Your task to perform on an android device: turn on the 24-hour format for clock Image 0: 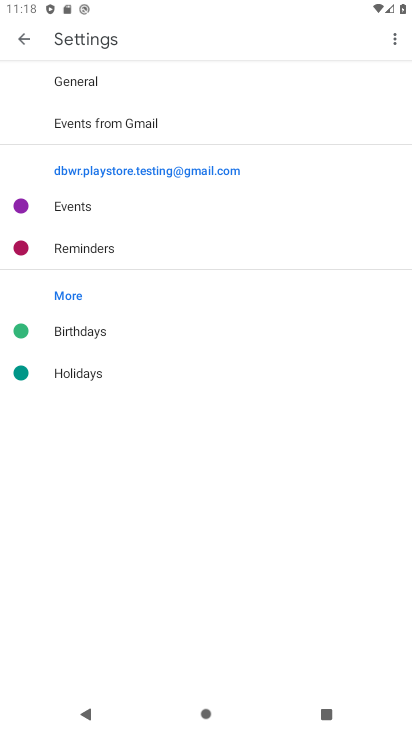
Step 0: press home button
Your task to perform on an android device: turn on the 24-hour format for clock Image 1: 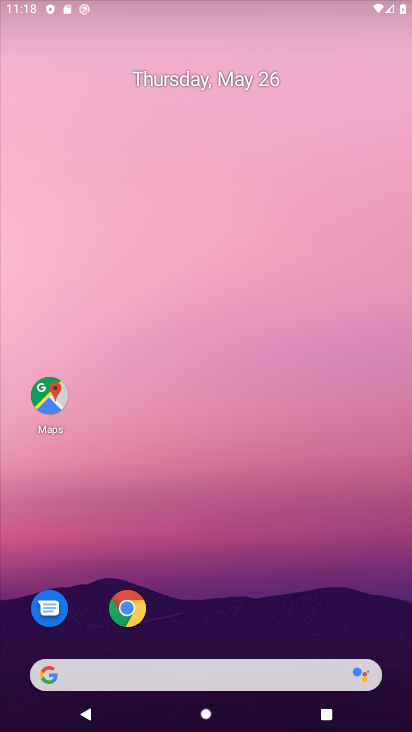
Step 1: drag from (273, 548) to (330, 57)
Your task to perform on an android device: turn on the 24-hour format for clock Image 2: 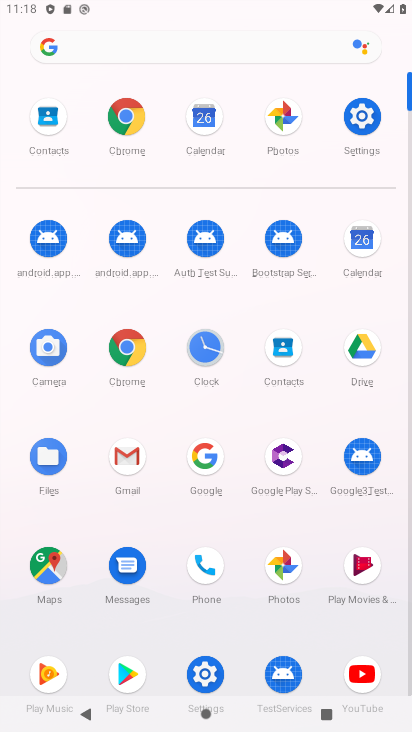
Step 2: click (208, 345)
Your task to perform on an android device: turn on the 24-hour format for clock Image 3: 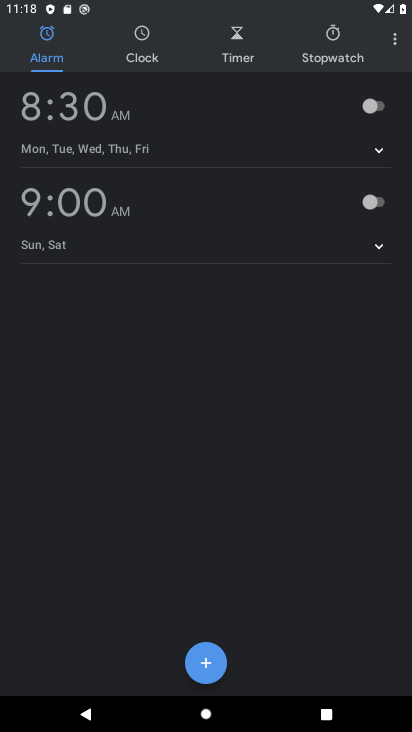
Step 3: click (399, 37)
Your task to perform on an android device: turn on the 24-hour format for clock Image 4: 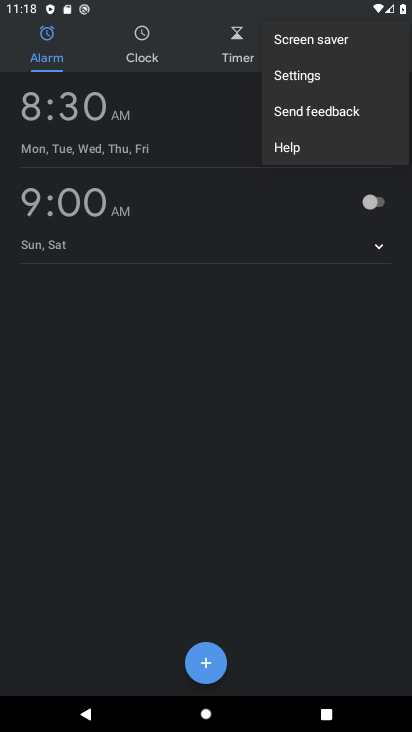
Step 4: click (288, 83)
Your task to perform on an android device: turn on the 24-hour format for clock Image 5: 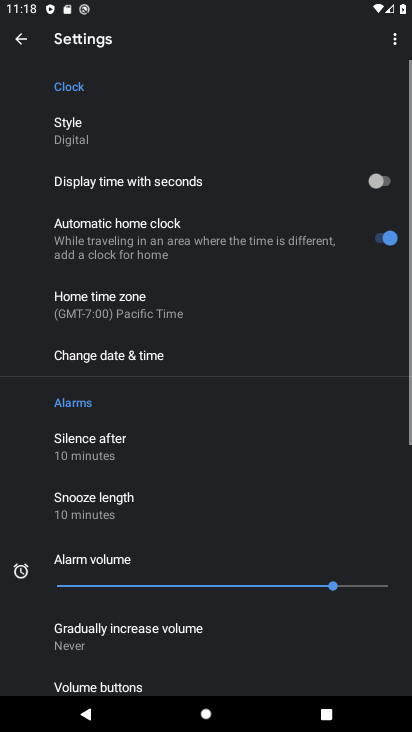
Step 5: click (193, 365)
Your task to perform on an android device: turn on the 24-hour format for clock Image 6: 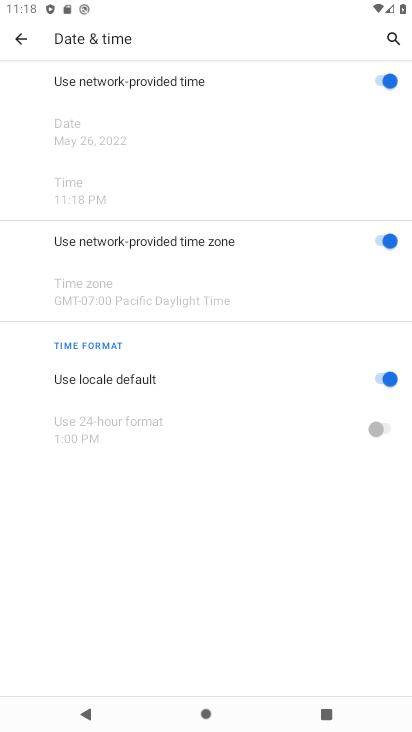
Step 6: click (376, 366)
Your task to perform on an android device: turn on the 24-hour format for clock Image 7: 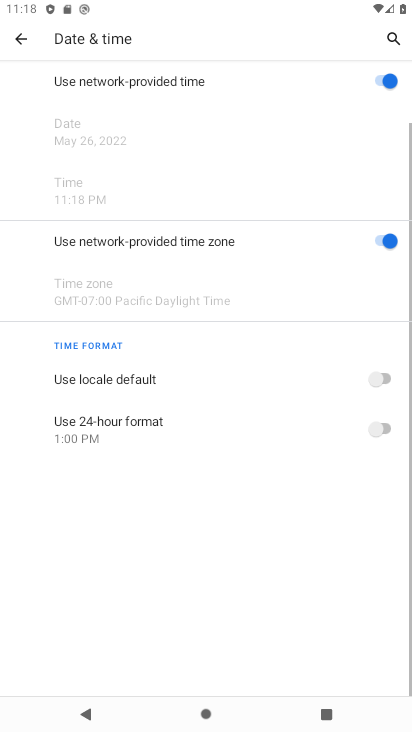
Step 7: click (377, 424)
Your task to perform on an android device: turn on the 24-hour format for clock Image 8: 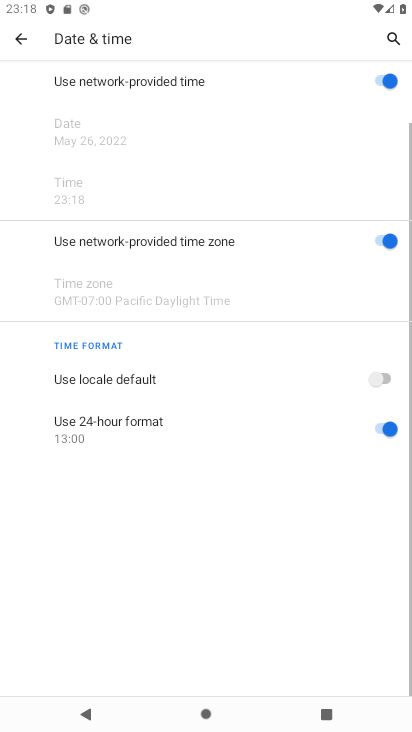
Step 8: task complete